Your task to perform on an android device: manage bookmarks in the chrome app Image 0: 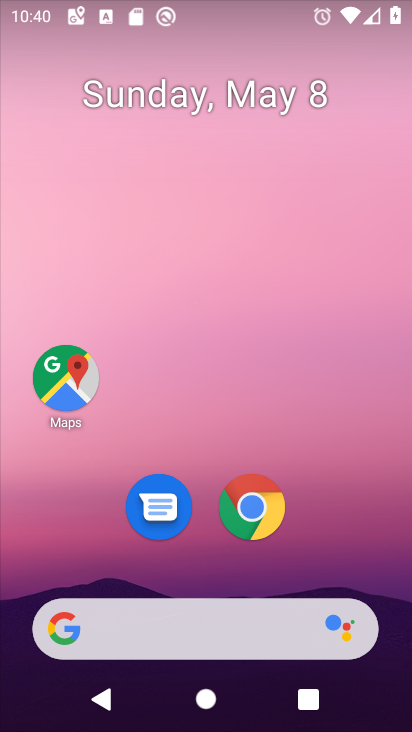
Step 0: drag from (238, 682) to (259, 711)
Your task to perform on an android device: manage bookmarks in the chrome app Image 1: 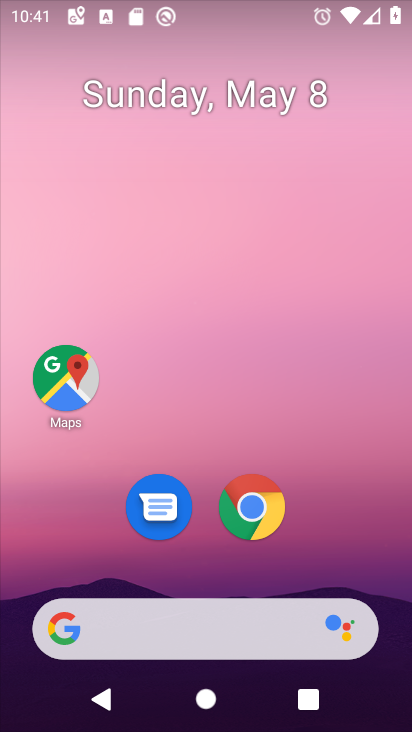
Step 1: click (266, 504)
Your task to perform on an android device: manage bookmarks in the chrome app Image 2: 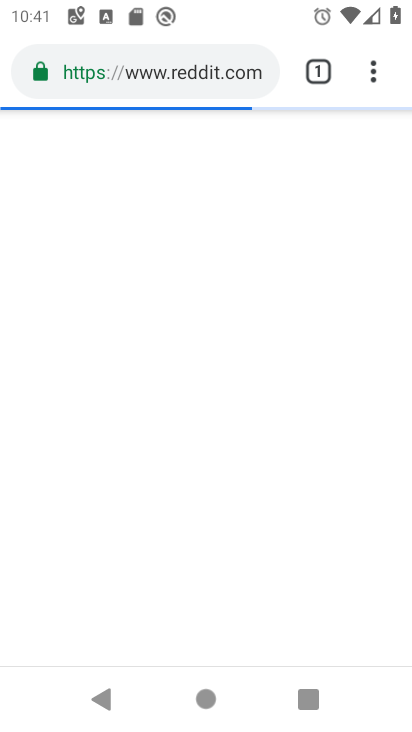
Step 2: click (370, 84)
Your task to perform on an android device: manage bookmarks in the chrome app Image 3: 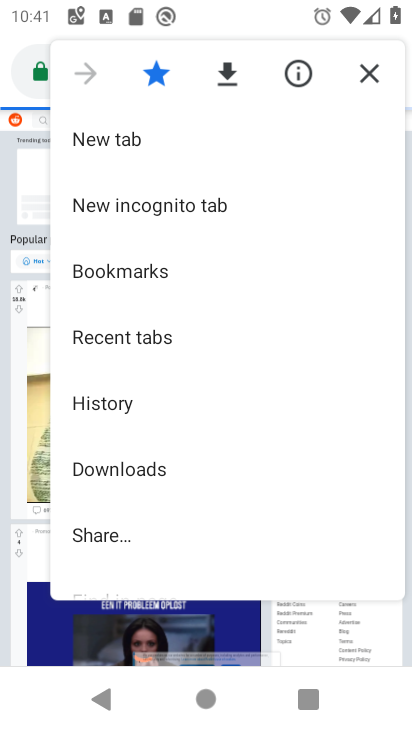
Step 3: click (156, 274)
Your task to perform on an android device: manage bookmarks in the chrome app Image 4: 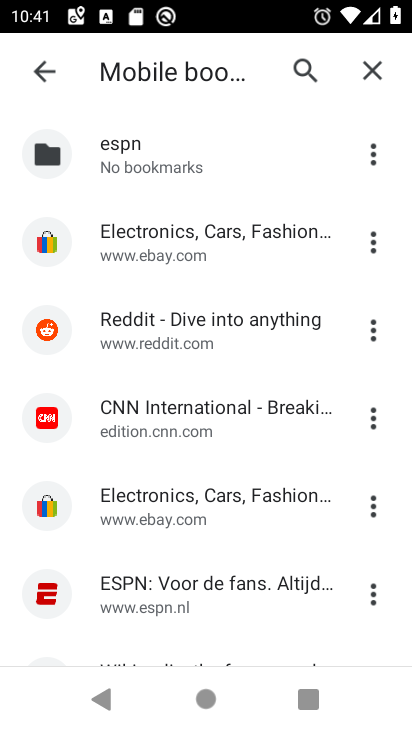
Step 4: click (375, 243)
Your task to perform on an android device: manage bookmarks in the chrome app Image 5: 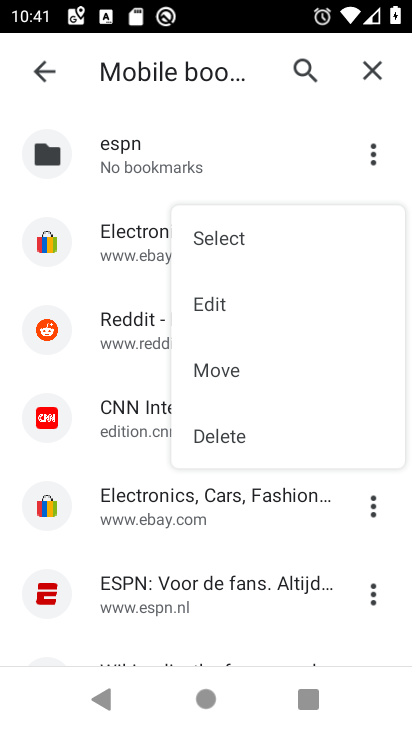
Step 5: click (242, 440)
Your task to perform on an android device: manage bookmarks in the chrome app Image 6: 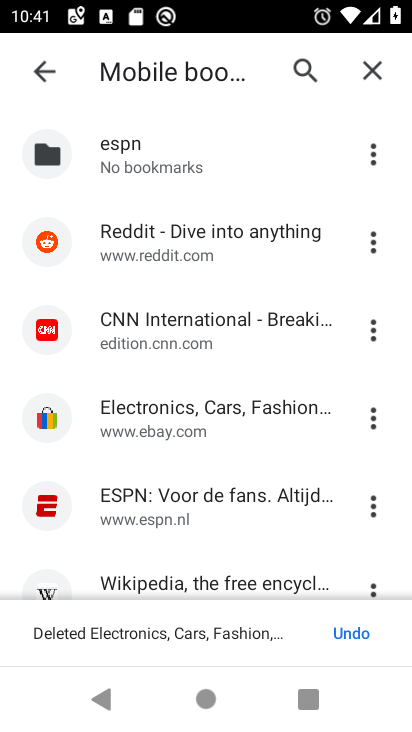
Step 6: task complete